Your task to perform on an android device: make emails show in primary in the gmail app Image 0: 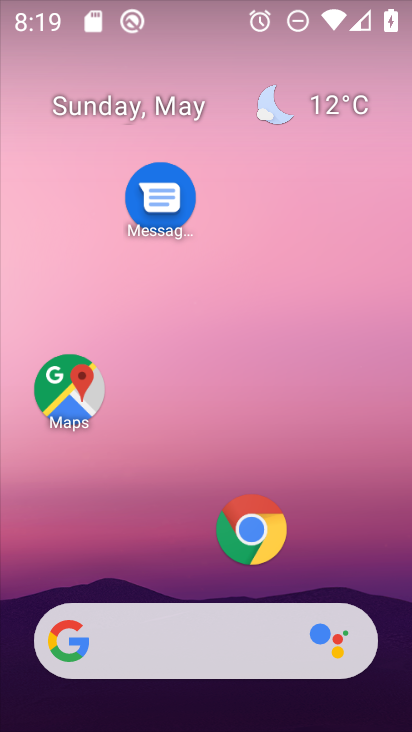
Step 0: press home button
Your task to perform on an android device: make emails show in primary in the gmail app Image 1: 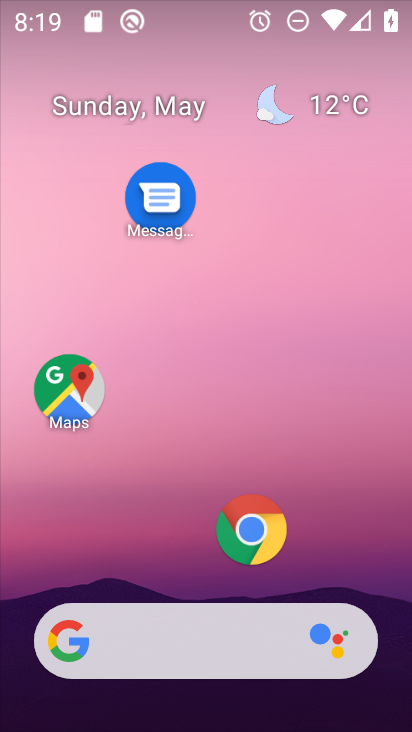
Step 1: drag from (190, 588) to (239, 9)
Your task to perform on an android device: make emails show in primary in the gmail app Image 2: 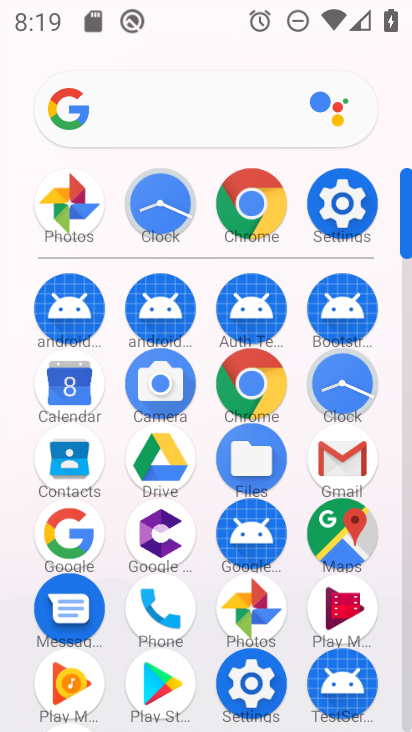
Step 2: click (343, 452)
Your task to perform on an android device: make emails show in primary in the gmail app Image 3: 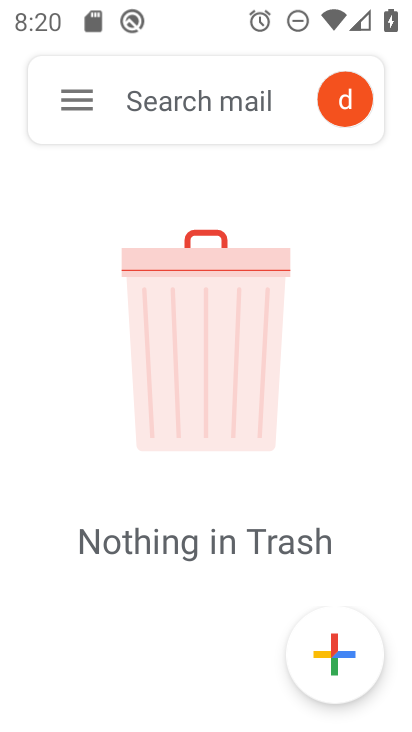
Step 3: click (74, 116)
Your task to perform on an android device: make emails show in primary in the gmail app Image 4: 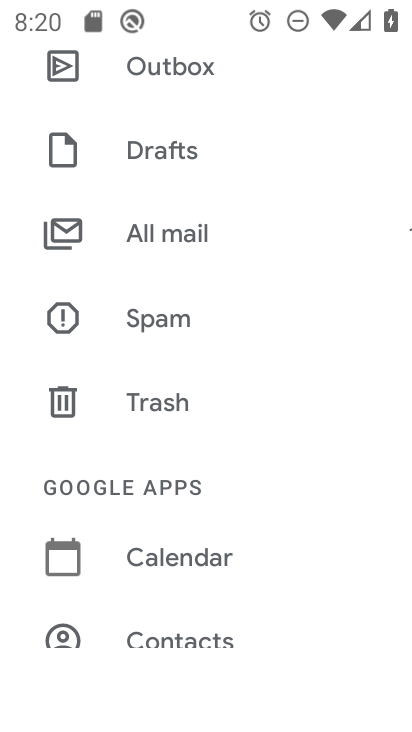
Step 4: drag from (149, 623) to (194, 46)
Your task to perform on an android device: make emails show in primary in the gmail app Image 5: 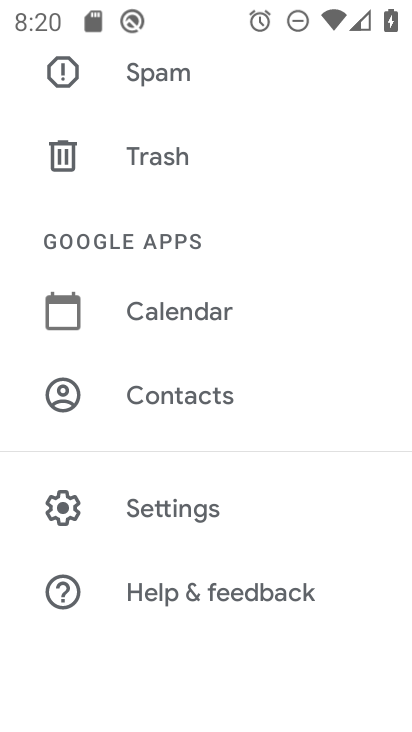
Step 5: click (162, 506)
Your task to perform on an android device: make emails show in primary in the gmail app Image 6: 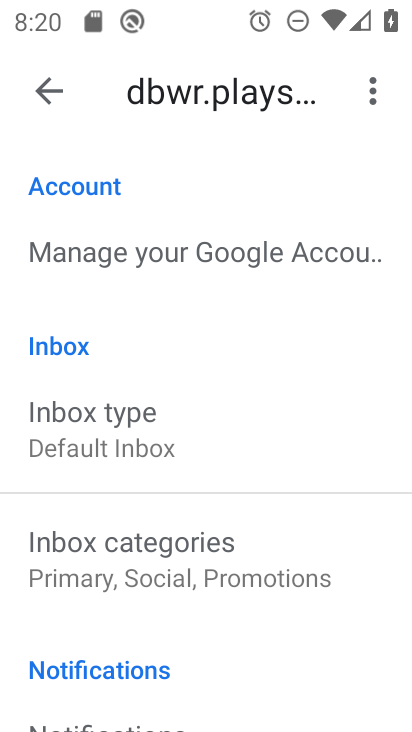
Step 6: click (130, 454)
Your task to perform on an android device: make emails show in primary in the gmail app Image 7: 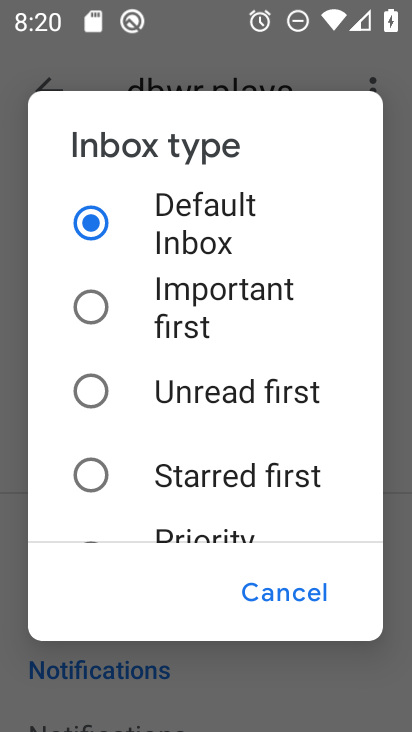
Step 7: click (98, 223)
Your task to perform on an android device: make emails show in primary in the gmail app Image 8: 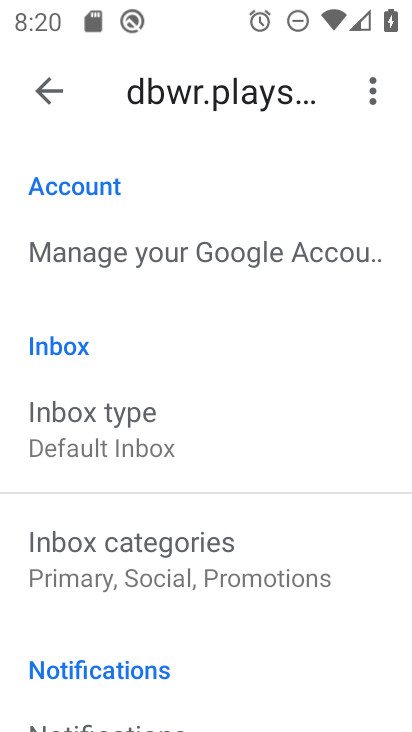
Step 8: task complete